Your task to perform on an android device: change the upload size in google photos Image 0: 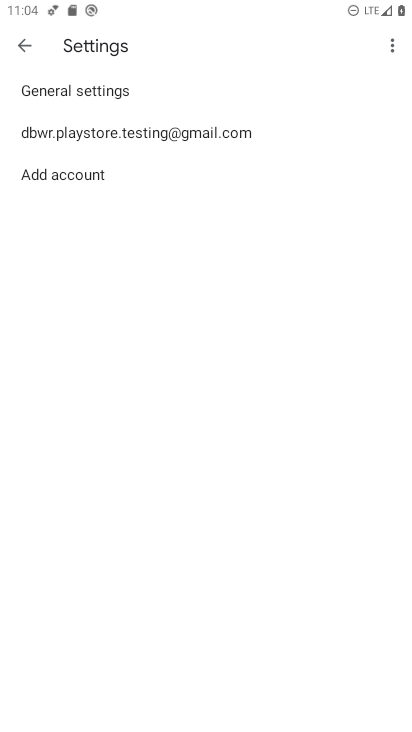
Step 0: press home button
Your task to perform on an android device: change the upload size in google photos Image 1: 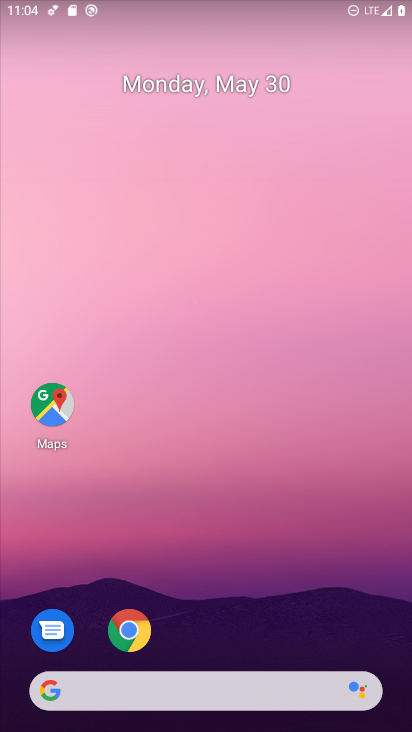
Step 1: drag from (218, 580) to (260, 224)
Your task to perform on an android device: change the upload size in google photos Image 2: 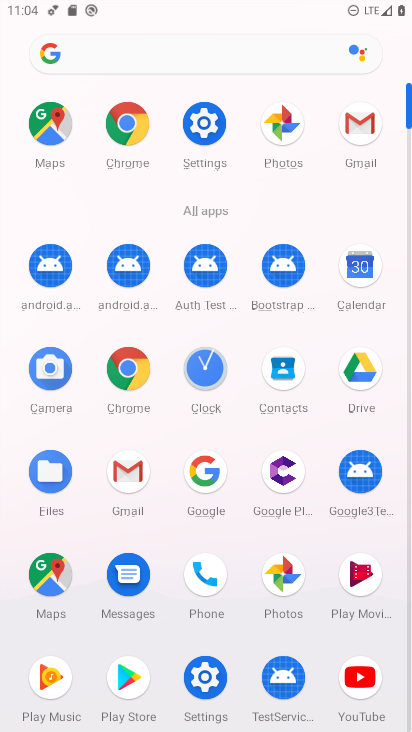
Step 2: click (296, 574)
Your task to perform on an android device: change the upload size in google photos Image 3: 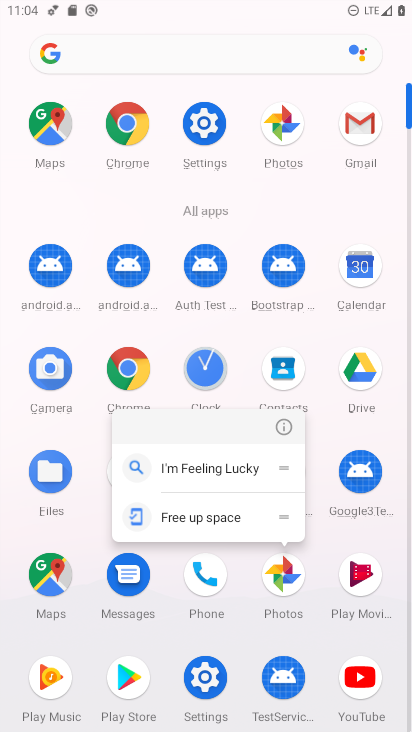
Step 3: click (281, 570)
Your task to perform on an android device: change the upload size in google photos Image 4: 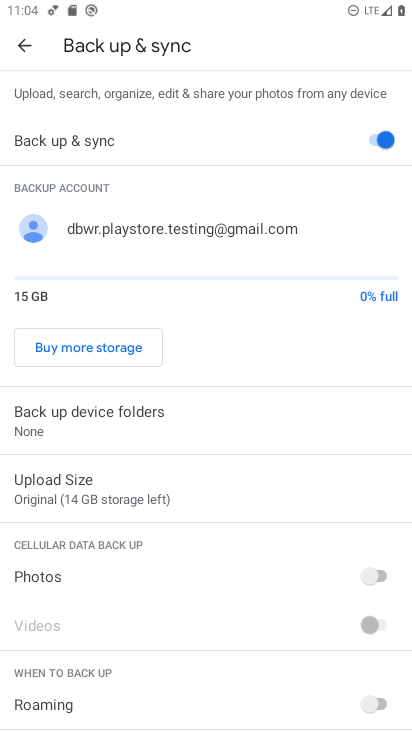
Step 4: click (152, 469)
Your task to perform on an android device: change the upload size in google photos Image 5: 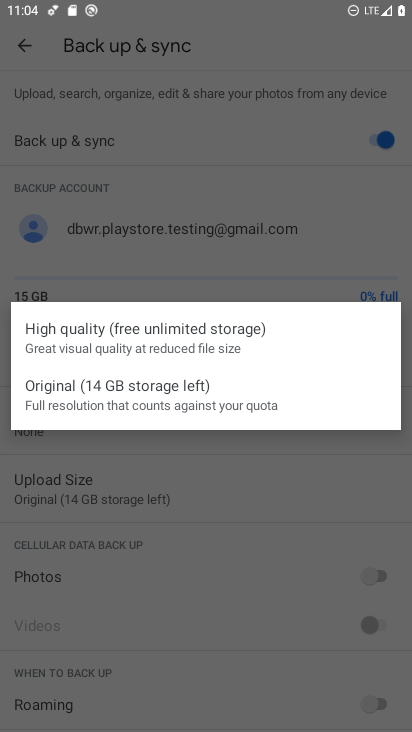
Step 5: click (177, 410)
Your task to perform on an android device: change the upload size in google photos Image 6: 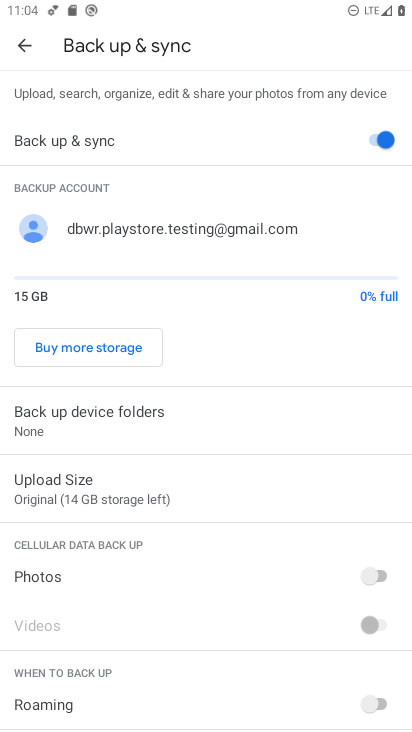
Step 6: task complete